Your task to perform on an android device: Open location settings Image 0: 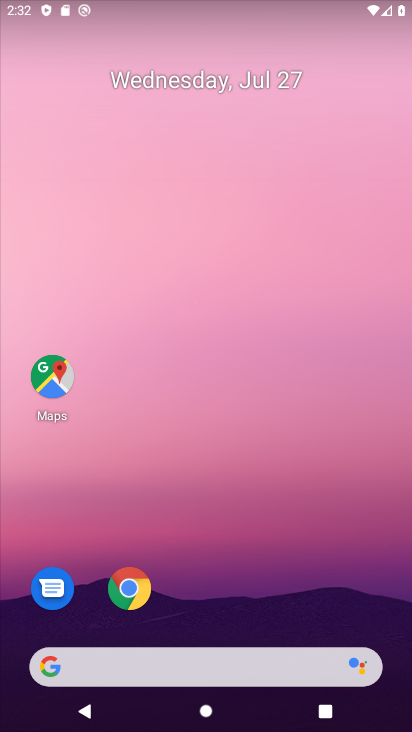
Step 0: drag from (206, 608) to (109, 348)
Your task to perform on an android device: Open location settings Image 1: 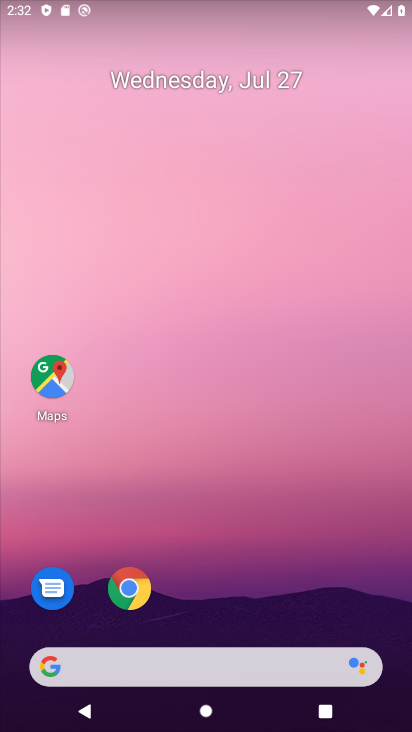
Step 1: drag from (259, 592) to (184, 418)
Your task to perform on an android device: Open location settings Image 2: 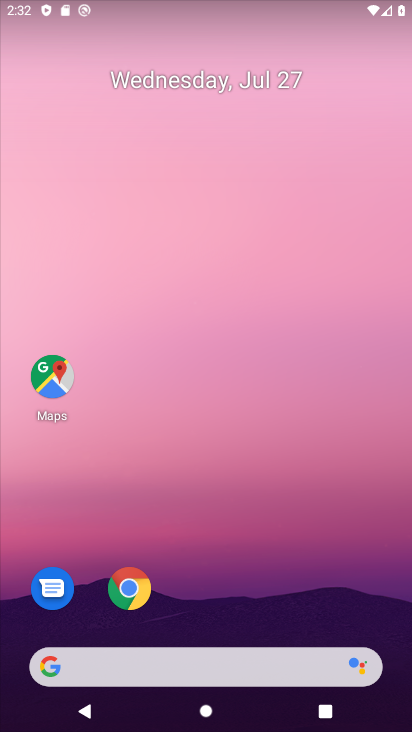
Step 2: drag from (127, 128) to (160, 66)
Your task to perform on an android device: Open location settings Image 3: 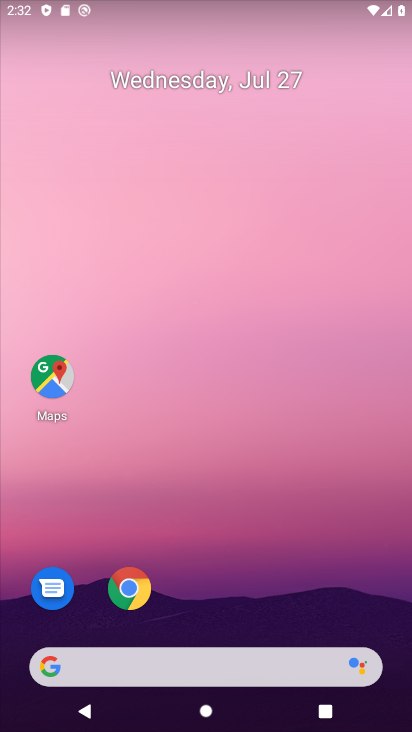
Step 3: drag from (217, 424) to (154, 66)
Your task to perform on an android device: Open location settings Image 4: 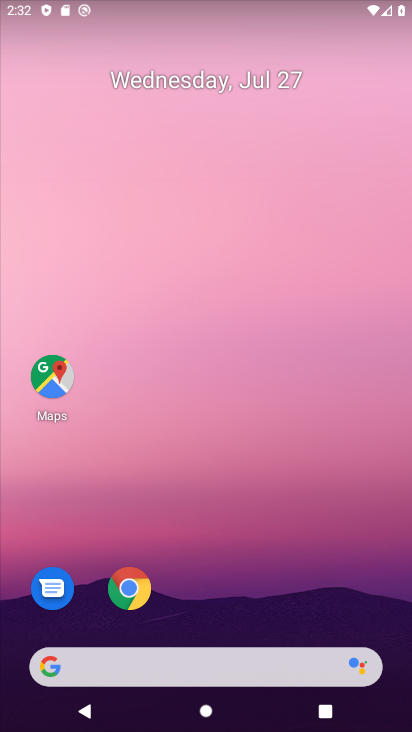
Step 4: drag from (213, 431) to (206, 63)
Your task to perform on an android device: Open location settings Image 5: 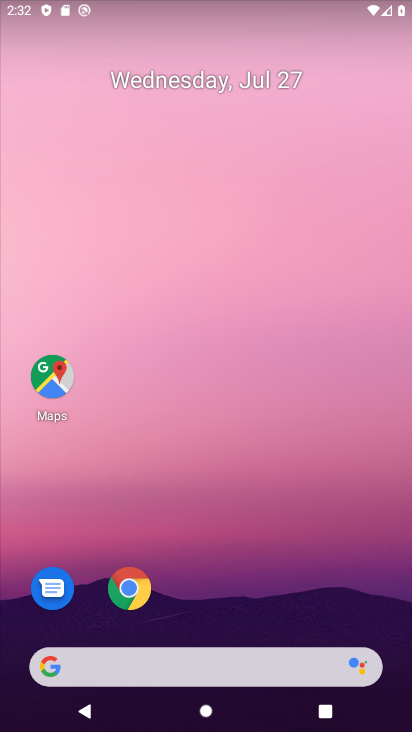
Step 5: drag from (253, 515) to (150, 28)
Your task to perform on an android device: Open location settings Image 6: 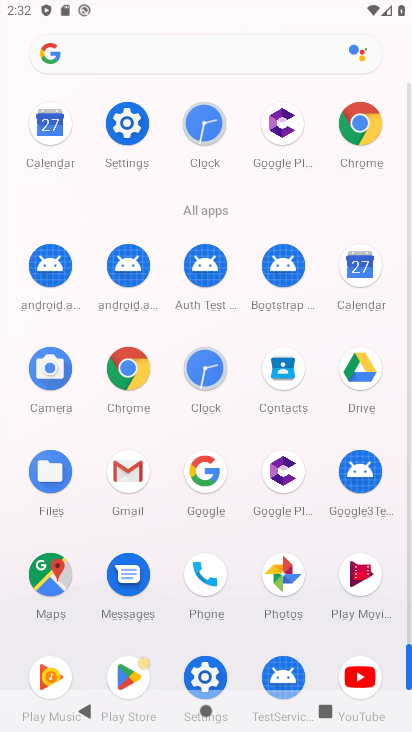
Step 6: drag from (175, 366) to (113, 39)
Your task to perform on an android device: Open location settings Image 7: 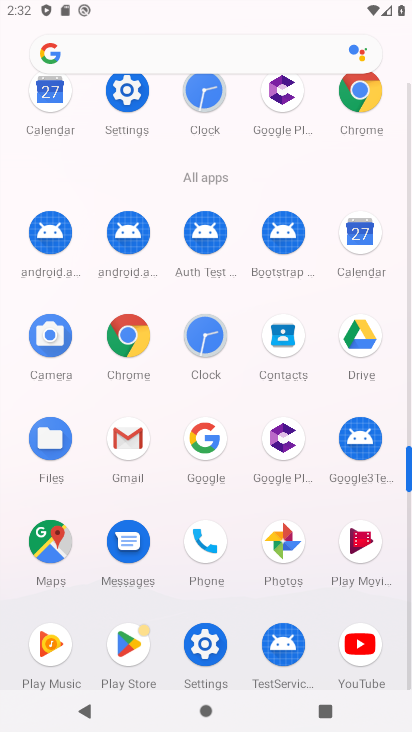
Step 7: click (236, 627)
Your task to perform on an android device: Open location settings Image 8: 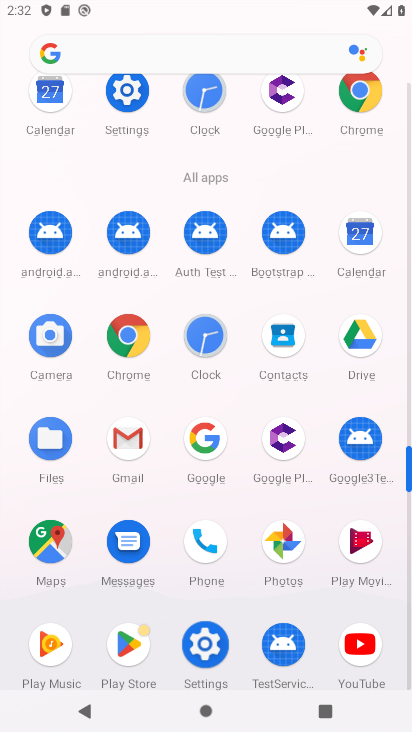
Step 8: click (214, 640)
Your task to perform on an android device: Open location settings Image 9: 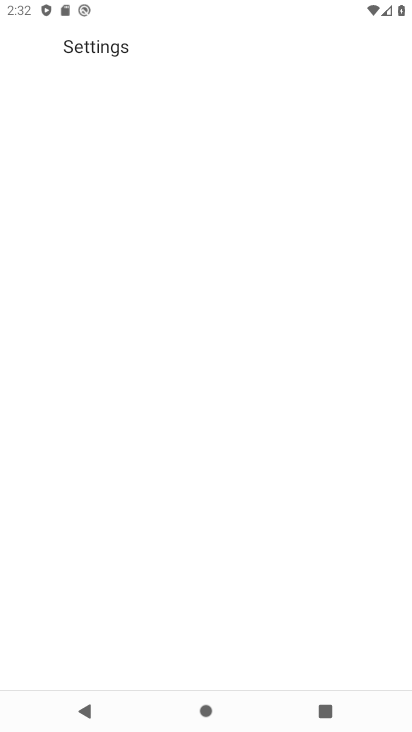
Step 9: click (214, 640)
Your task to perform on an android device: Open location settings Image 10: 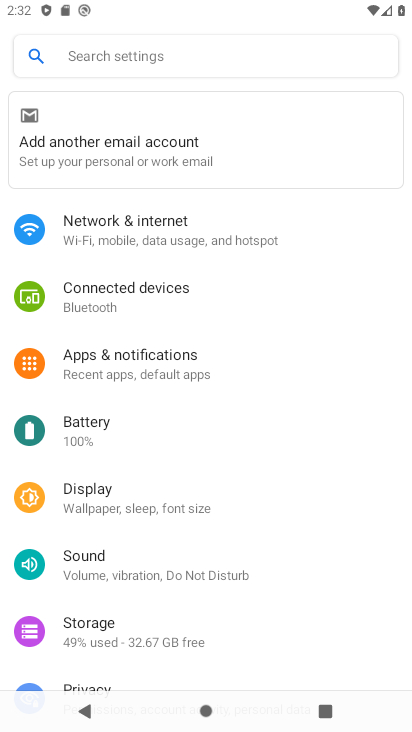
Step 10: click (216, 640)
Your task to perform on an android device: Open location settings Image 11: 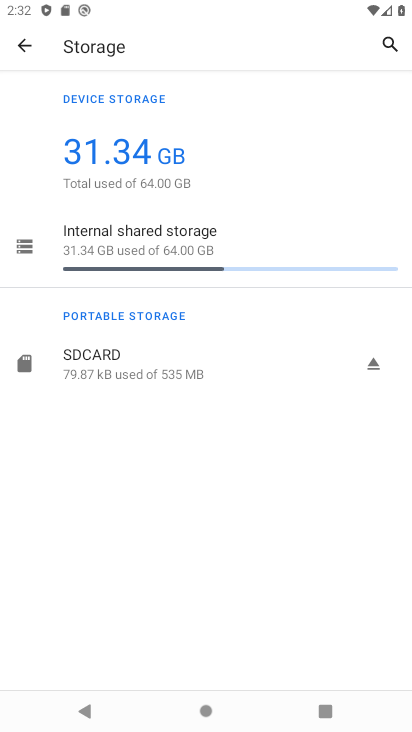
Step 11: click (15, 41)
Your task to perform on an android device: Open location settings Image 12: 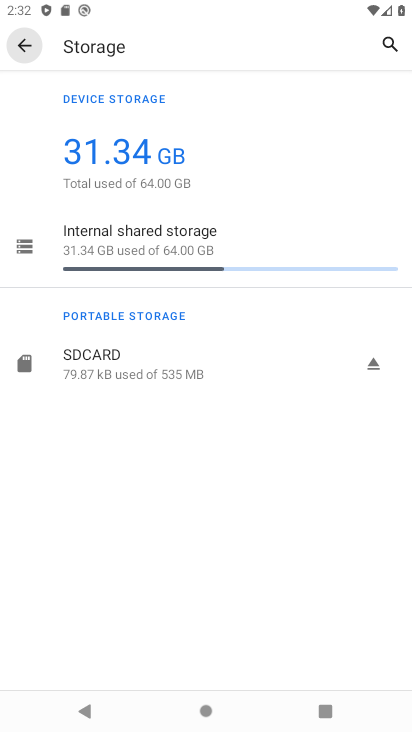
Step 12: click (22, 32)
Your task to perform on an android device: Open location settings Image 13: 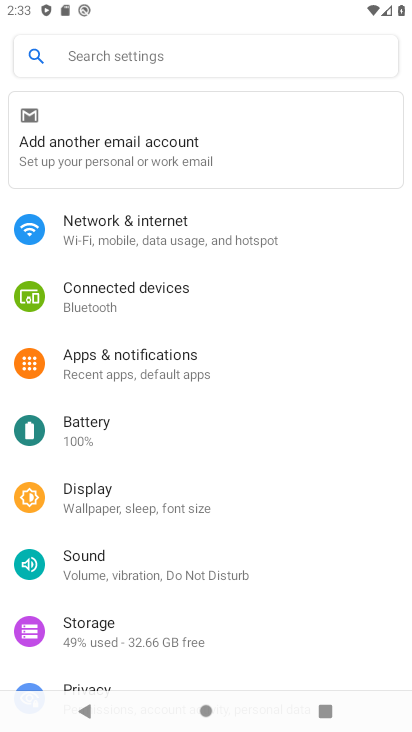
Step 13: drag from (115, 281) to (104, 199)
Your task to perform on an android device: Open location settings Image 14: 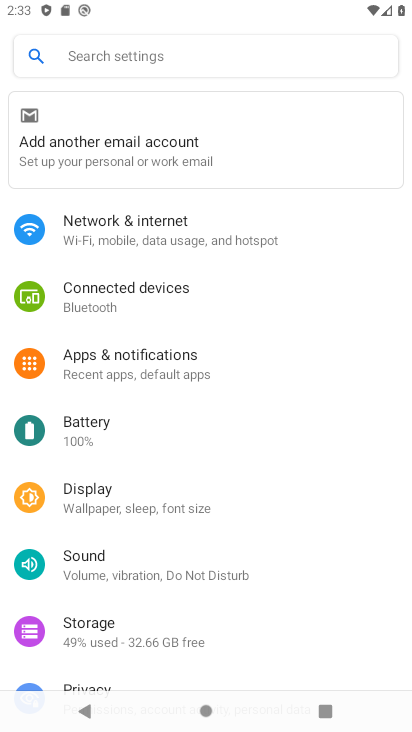
Step 14: drag from (164, 422) to (164, 189)
Your task to perform on an android device: Open location settings Image 15: 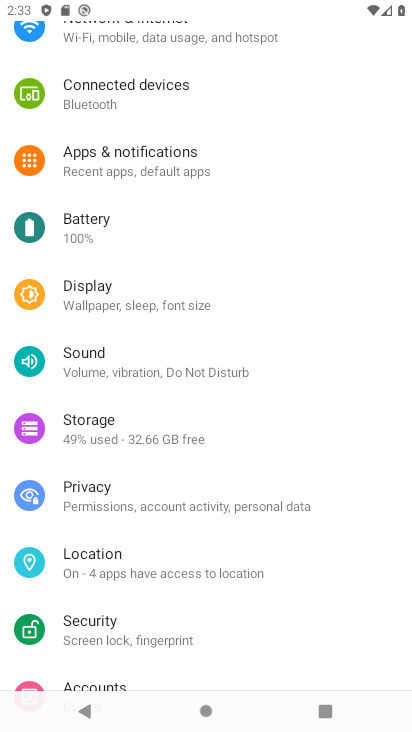
Step 15: drag from (220, 503) to (195, 304)
Your task to perform on an android device: Open location settings Image 16: 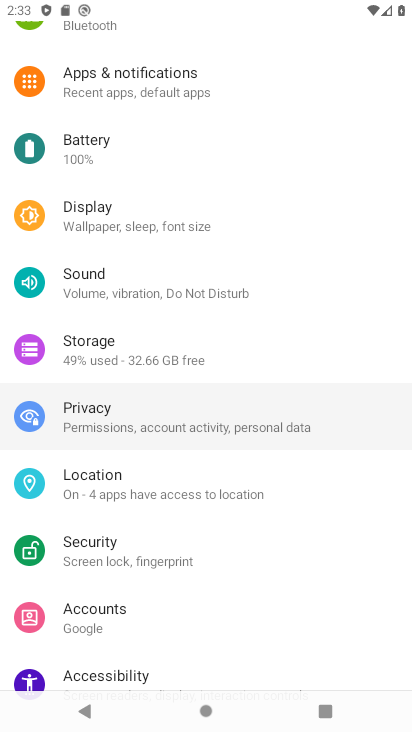
Step 16: drag from (162, 465) to (126, 248)
Your task to perform on an android device: Open location settings Image 17: 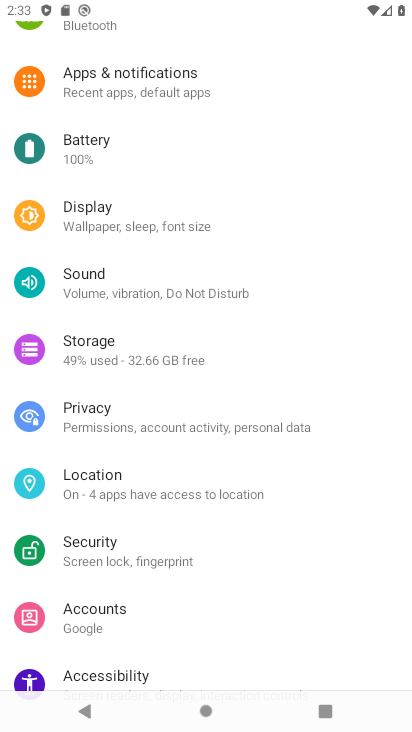
Step 17: click (127, 478)
Your task to perform on an android device: Open location settings Image 18: 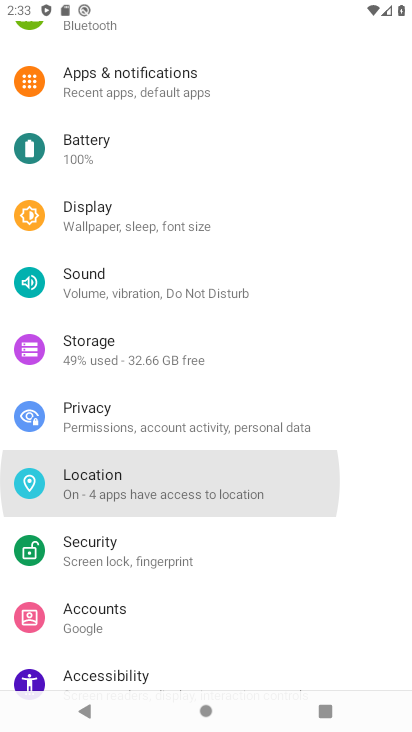
Step 18: click (127, 478)
Your task to perform on an android device: Open location settings Image 19: 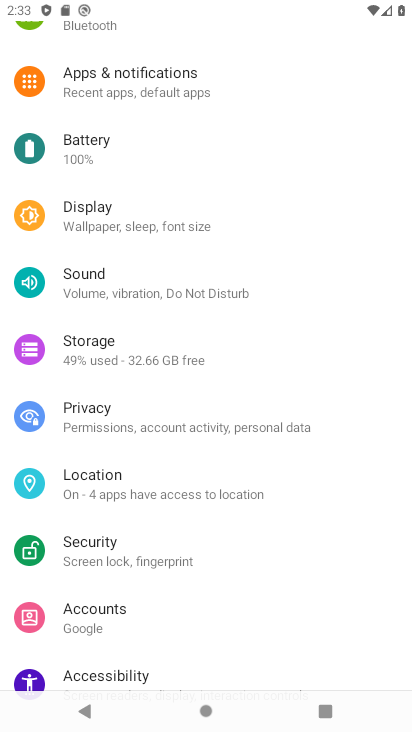
Step 19: click (127, 478)
Your task to perform on an android device: Open location settings Image 20: 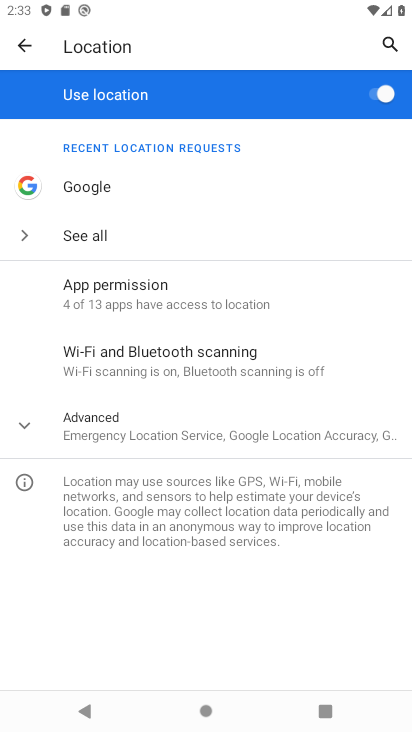
Step 20: task complete